Your task to perform on an android device: Show me recent news Image 0: 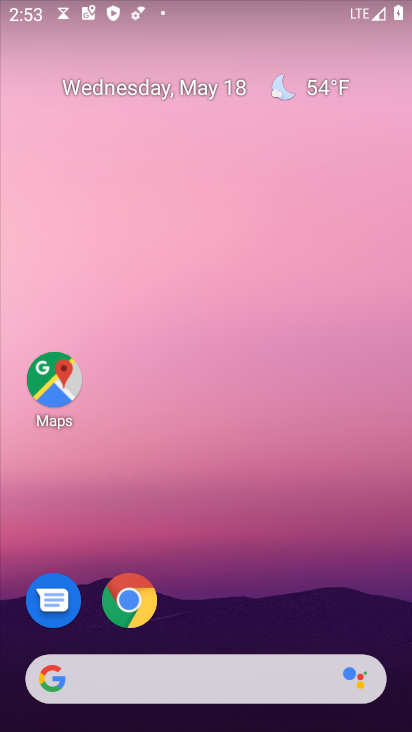
Step 0: press home button
Your task to perform on an android device: Show me recent news Image 1: 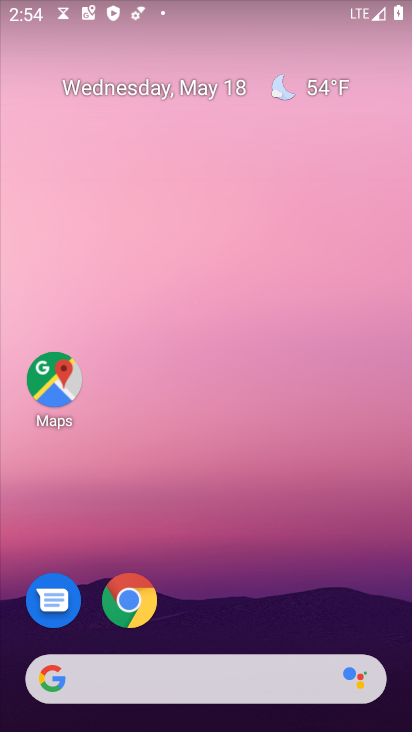
Step 1: drag from (170, 677) to (314, 218)
Your task to perform on an android device: Show me recent news Image 2: 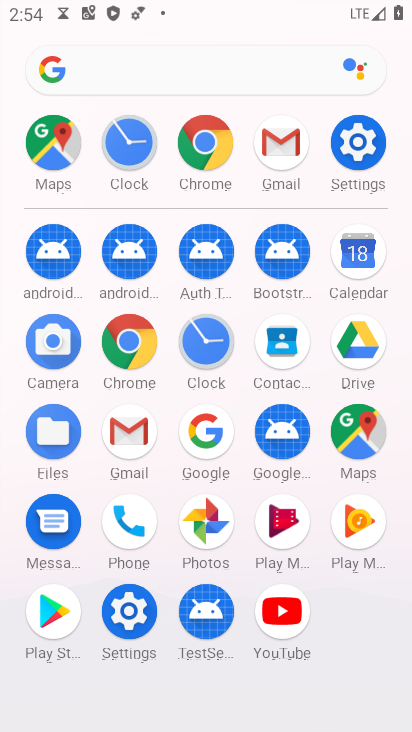
Step 2: click (205, 431)
Your task to perform on an android device: Show me recent news Image 3: 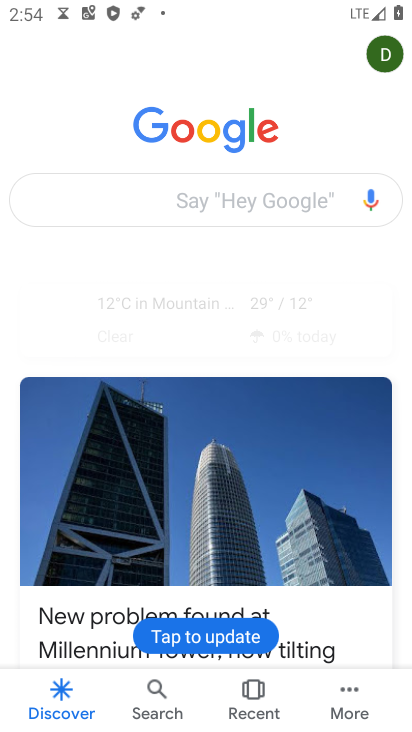
Step 3: task complete